Your task to perform on an android device: open a new tab in the chrome app Image 0: 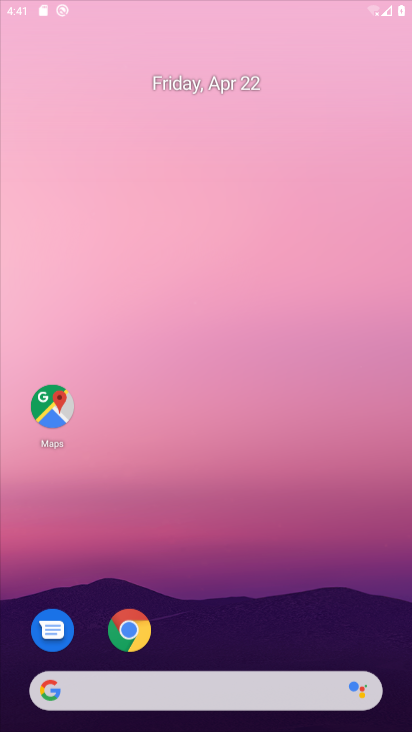
Step 0: drag from (273, 633) to (271, 1)
Your task to perform on an android device: open a new tab in the chrome app Image 1: 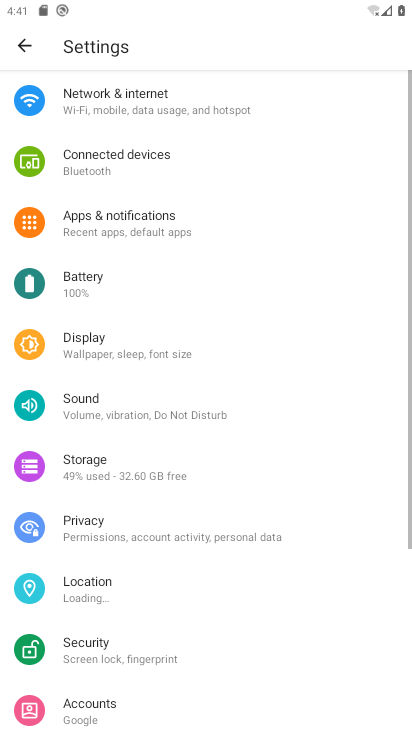
Step 1: press home button
Your task to perform on an android device: open a new tab in the chrome app Image 2: 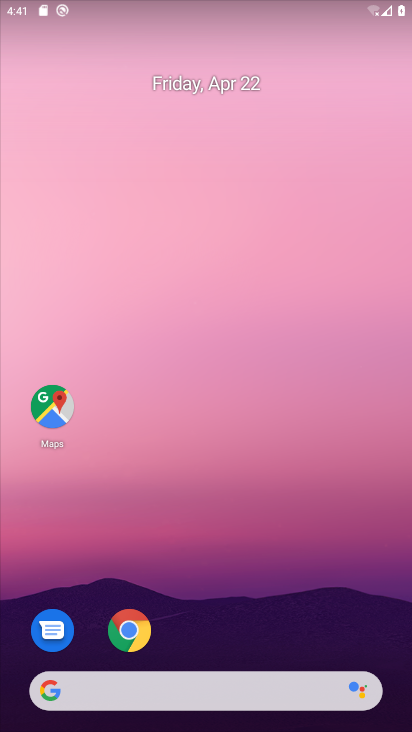
Step 2: click (141, 625)
Your task to perform on an android device: open a new tab in the chrome app Image 3: 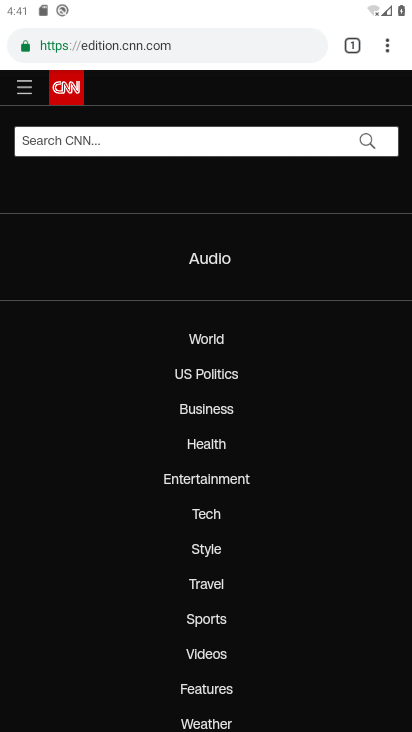
Step 3: click (384, 42)
Your task to perform on an android device: open a new tab in the chrome app Image 4: 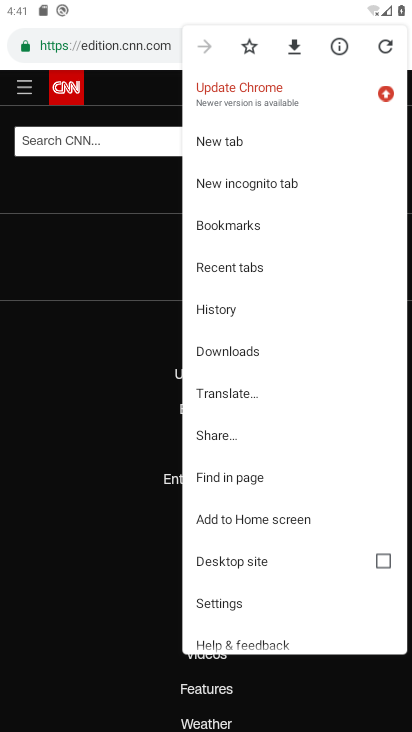
Step 4: click (248, 145)
Your task to perform on an android device: open a new tab in the chrome app Image 5: 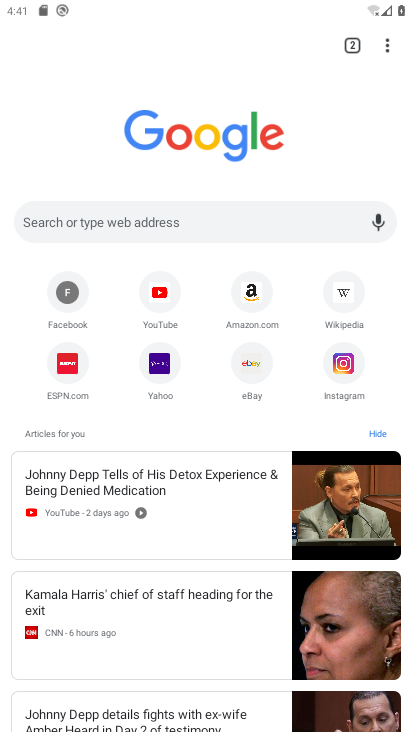
Step 5: task complete